Your task to perform on an android device: delete browsing data in the chrome app Image 0: 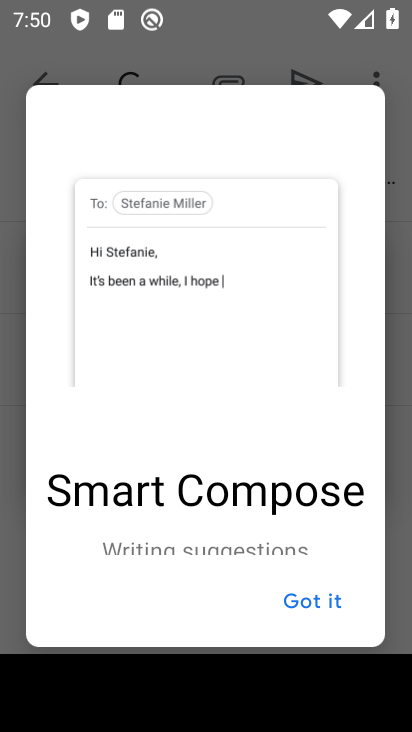
Step 0: press home button
Your task to perform on an android device: delete browsing data in the chrome app Image 1: 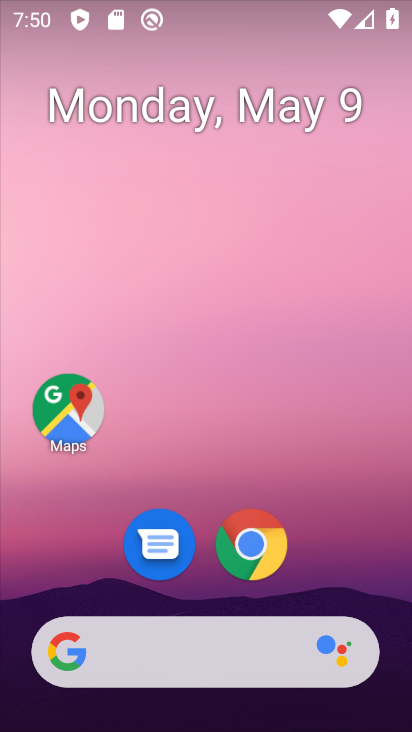
Step 1: click (229, 519)
Your task to perform on an android device: delete browsing data in the chrome app Image 2: 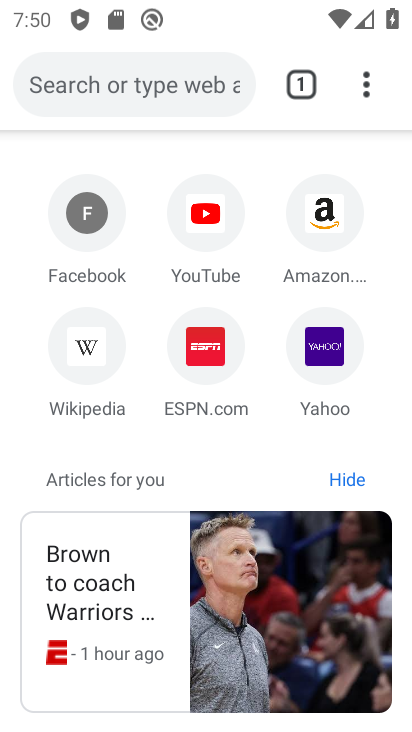
Step 2: drag from (366, 83) to (115, 471)
Your task to perform on an android device: delete browsing data in the chrome app Image 3: 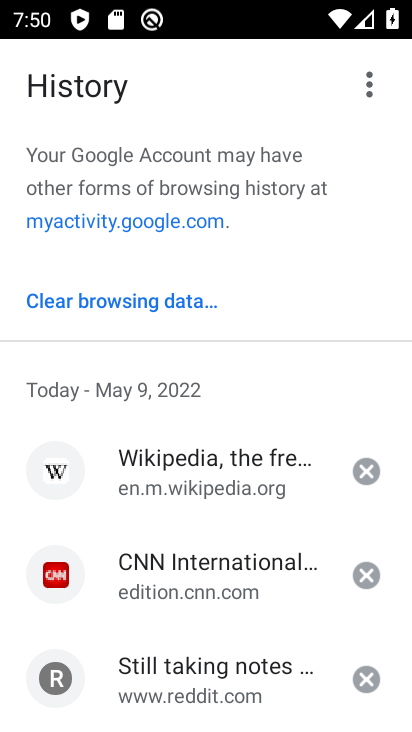
Step 3: click (100, 307)
Your task to perform on an android device: delete browsing data in the chrome app Image 4: 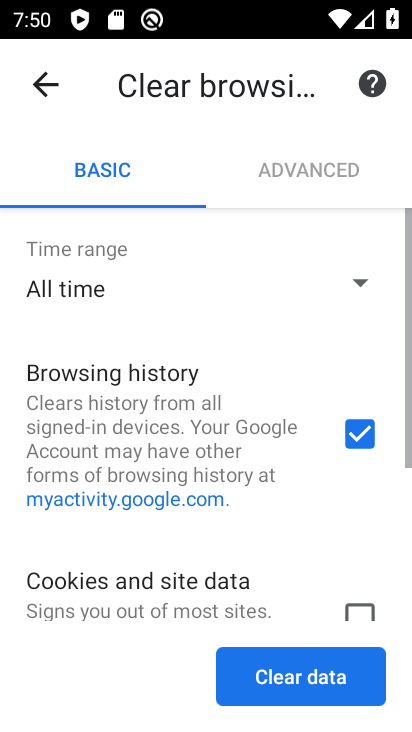
Step 4: drag from (229, 585) to (220, 352)
Your task to perform on an android device: delete browsing data in the chrome app Image 5: 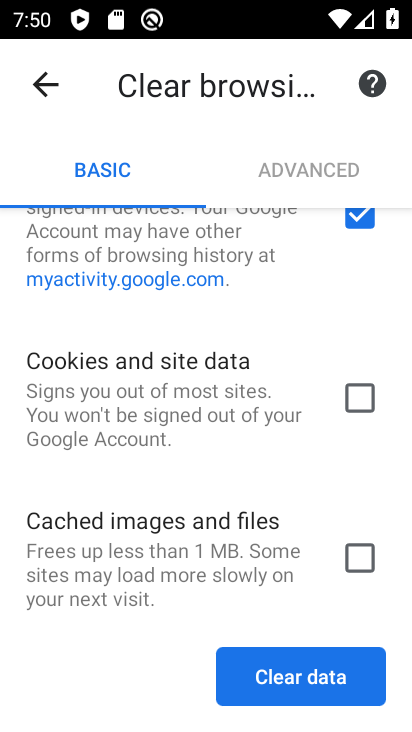
Step 5: click (357, 405)
Your task to perform on an android device: delete browsing data in the chrome app Image 6: 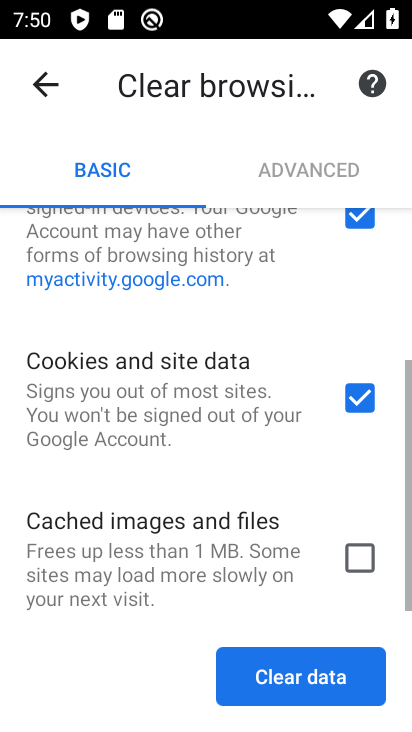
Step 6: click (349, 551)
Your task to perform on an android device: delete browsing data in the chrome app Image 7: 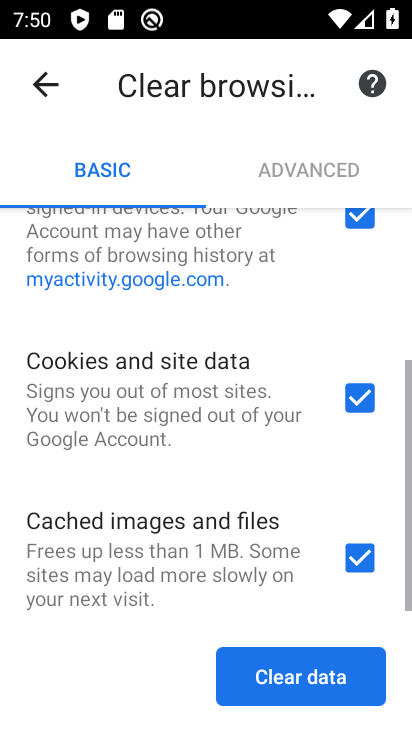
Step 7: click (305, 671)
Your task to perform on an android device: delete browsing data in the chrome app Image 8: 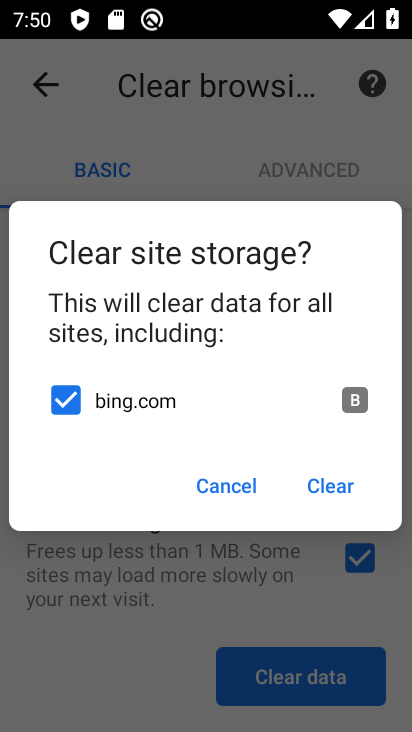
Step 8: click (328, 478)
Your task to perform on an android device: delete browsing data in the chrome app Image 9: 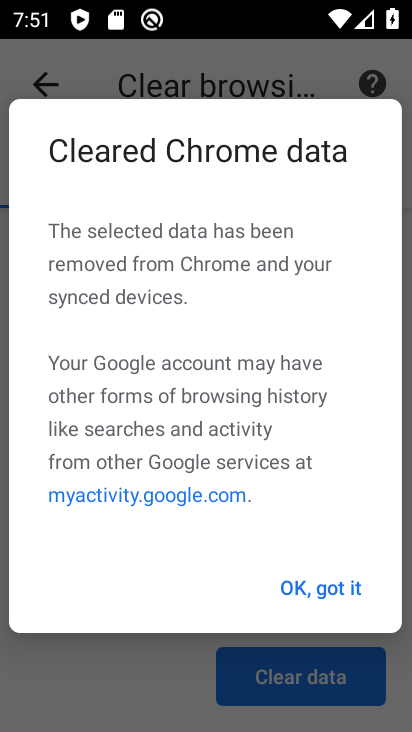
Step 9: click (305, 579)
Your task to perform on an android device: delete browsing data in the chrome app Image 10: 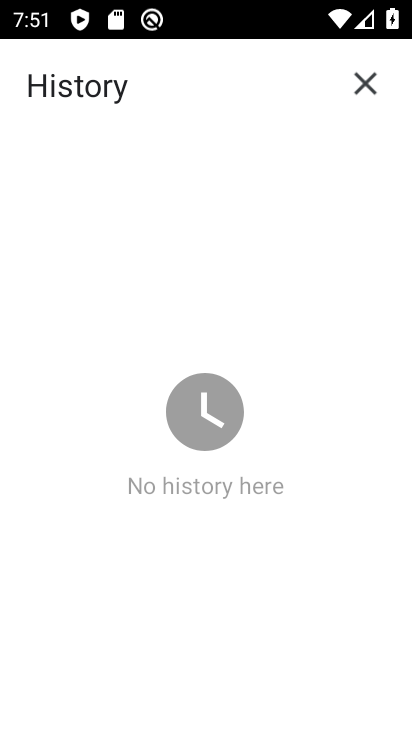
Step 10: task complete